Your task to perform on an android device: Go to battery settings Image 0: 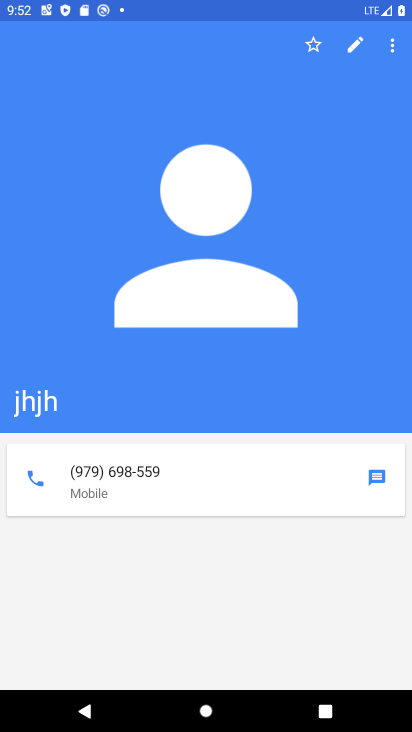
Step 0: press home button
Your task to perform on an android device: Go to battery settings Image 1: 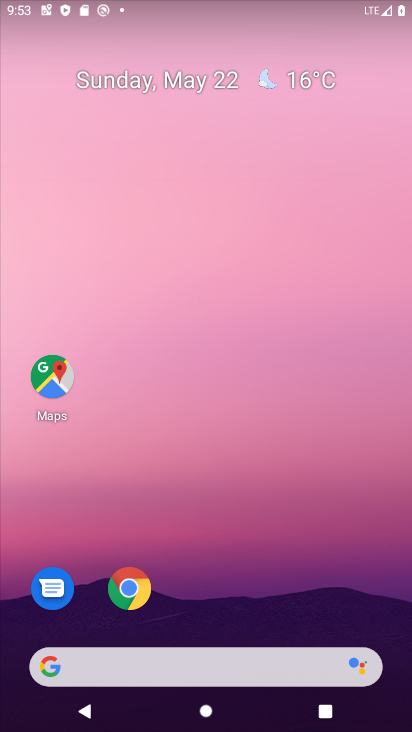
Step 1: drag from (227, 578) to (227, 105)
Your task to perform on an android device: Go to battery settings Image 2: 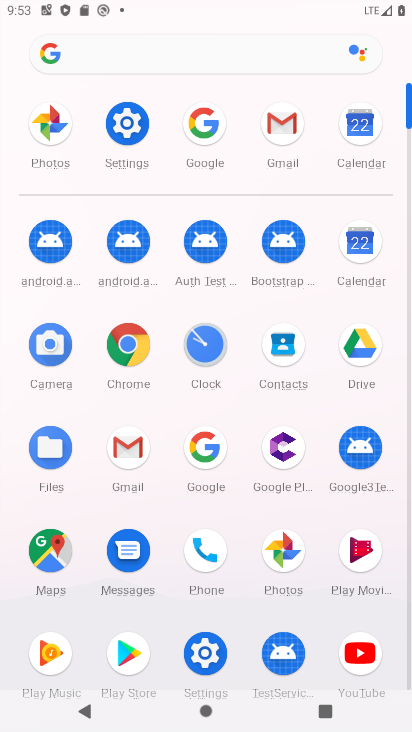
Step 2: click (134, 108)
Your task to perform on an android device: Go to battery settings Image 3: 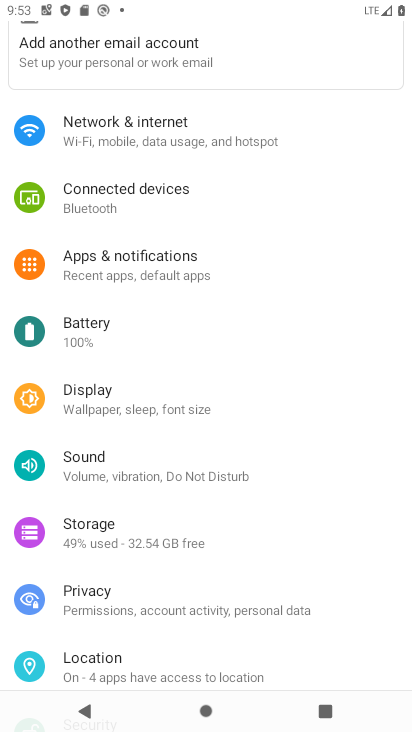
Step 3: click (151, 322)
Your task to perform on an android device: Go to battery settings Image 4: 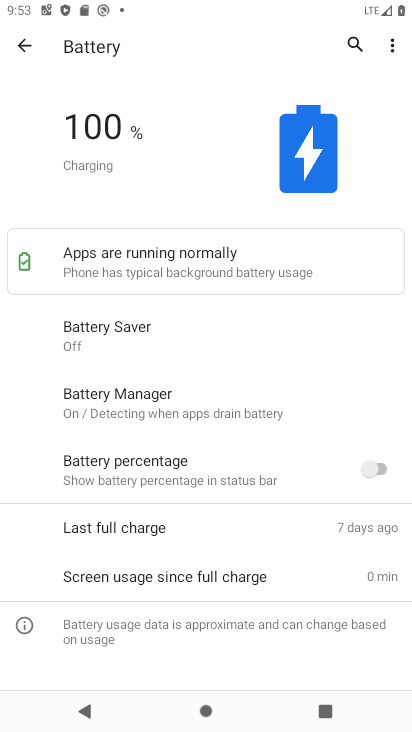
Step 4: task complete